Your task to perform on an android device: Turn off the flashlight Image 0: 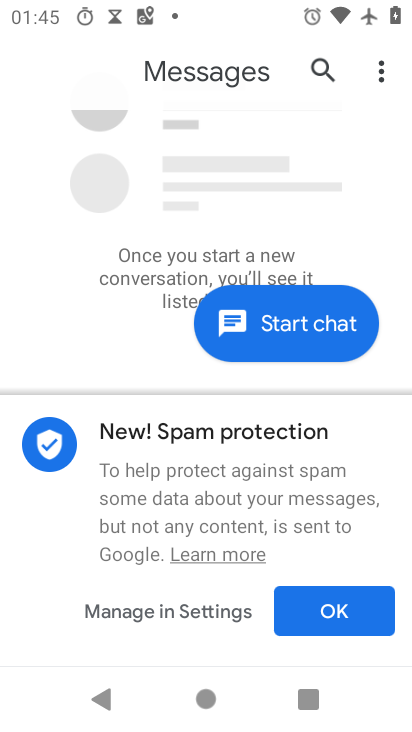
Step 0: press home button
Your task to perform on an android device: Turn off the flashlight Image 1: 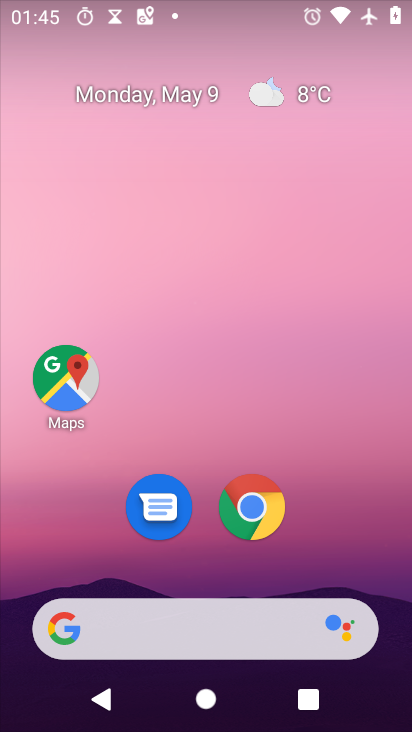
Step 1: drag from (226, 725) to (235, 83)
Your task to perform on an android device: Turn off the flashlight Image 2: 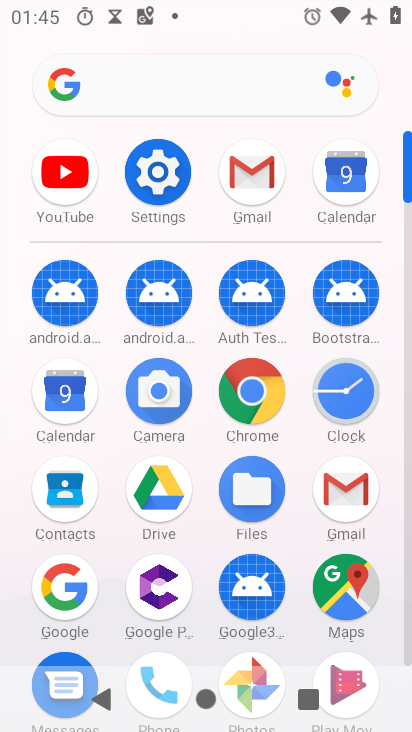
Step 2: click (165, 160)
Your task to perform on an android device: Turn off the flashlight Image 3: 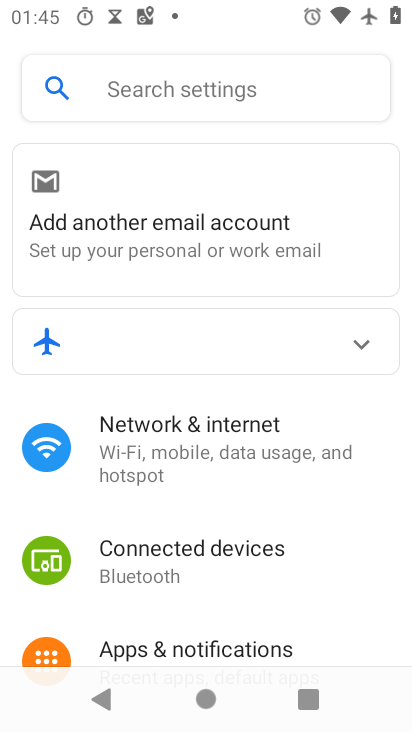
Step 3: task complete